Your task to perform on an android device: turn off translation in the chrome app Image 0: 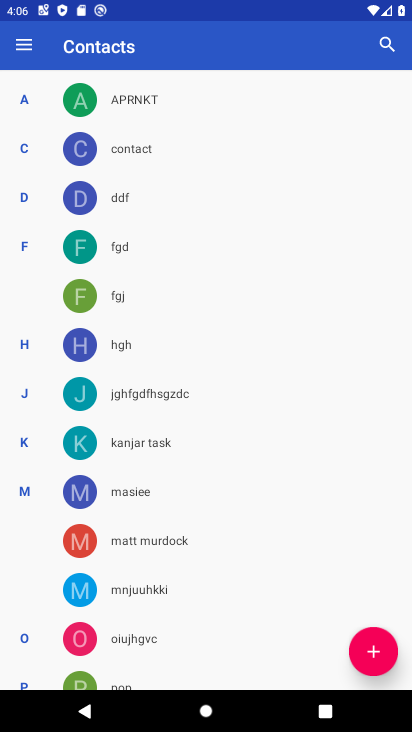
Step 0: press home button
Your task to perform on an android device: turn off translation in the chrome app Image 1: 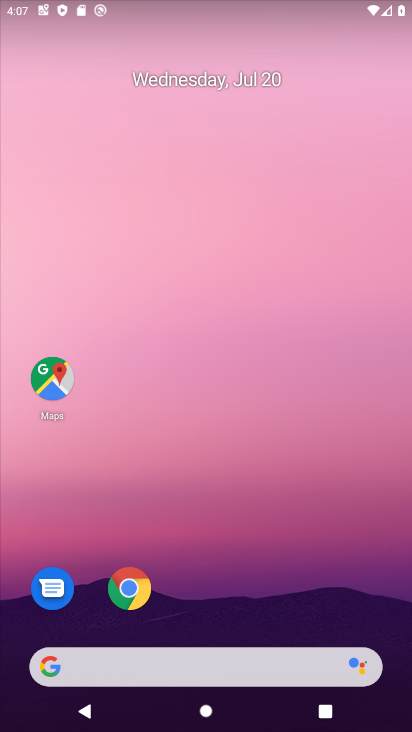
Step 1: drag from (313, 373) to (315, 0)
Your task to perform on an android device: turn off translation in the chrome app Image 2: 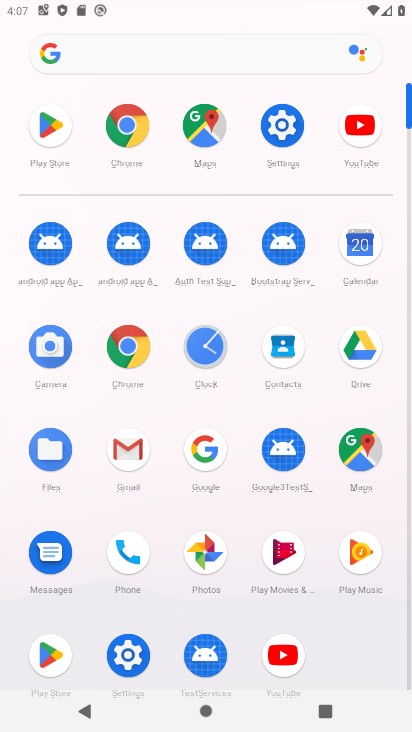
Step 2: click (133, 351)
Your task to perform on an android device: turn off translation in the chrome app Image 3: 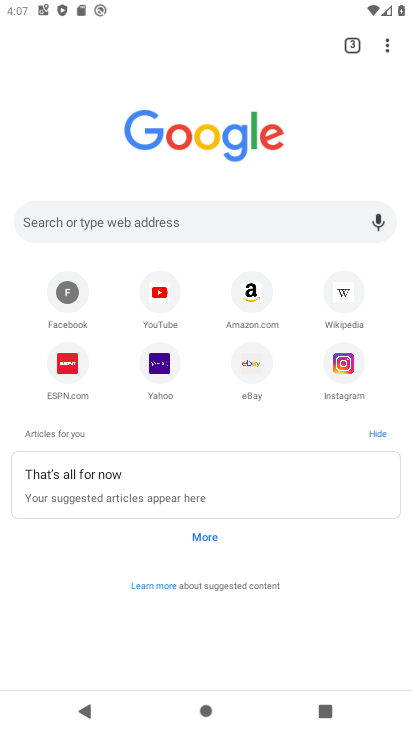
Step 3: drag from (391, 48) to (240, 392)
Your task to perform on an android device: turn off translation in the chrome app Image 4: 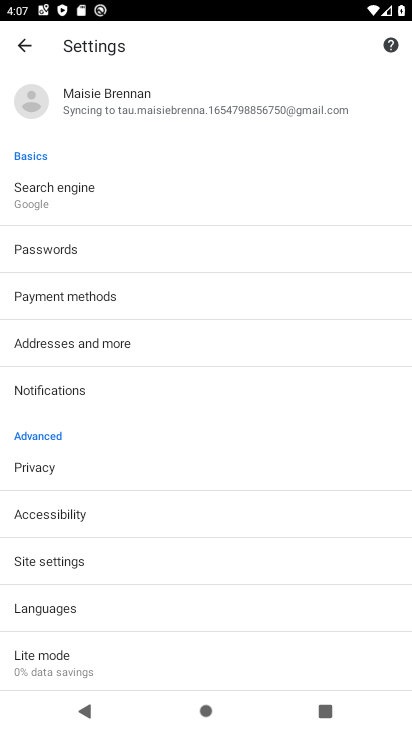
Step 4: drag from (191, 630) to (278, 291)
Your task to perform on an android device: turn off translation in the chrome app Image 5: 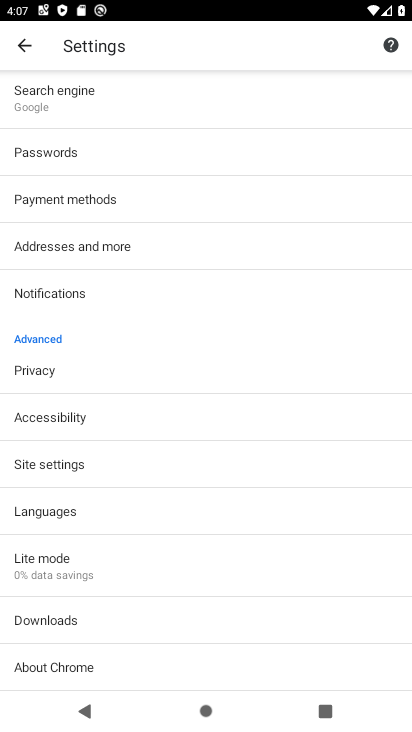
Step 5: click (65, 518)
Your task to perform on an android device: turn off translation in the chrome app Image 6: 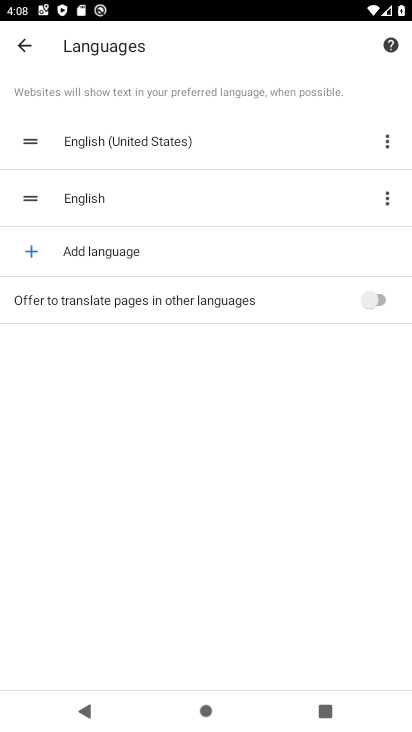
Step 6: task complete